Your task to perform on an android device: turn on location history Image 0: 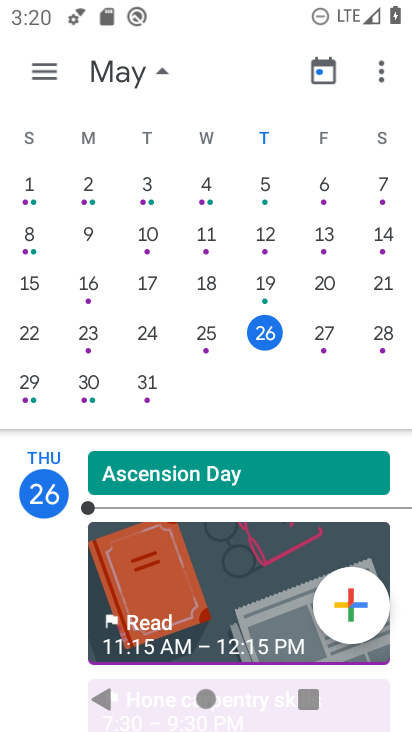
Step 0: press home button
Your task to perform on an android device: turn on location history Image 1: 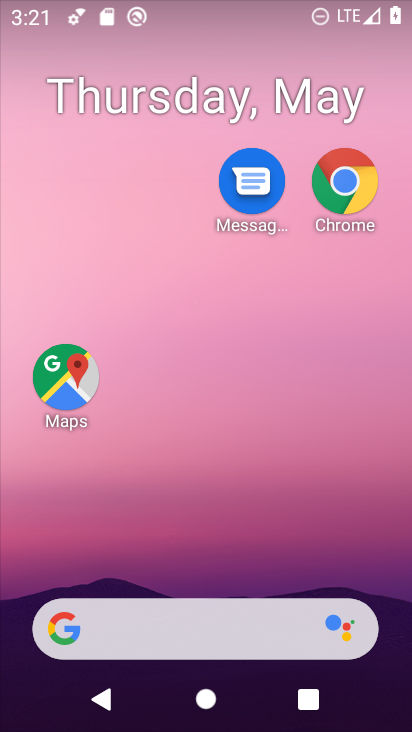
Step 1: drag from (275, 638) to (288, 105)
Your task to perform on an android device: turn on location history Image 2: 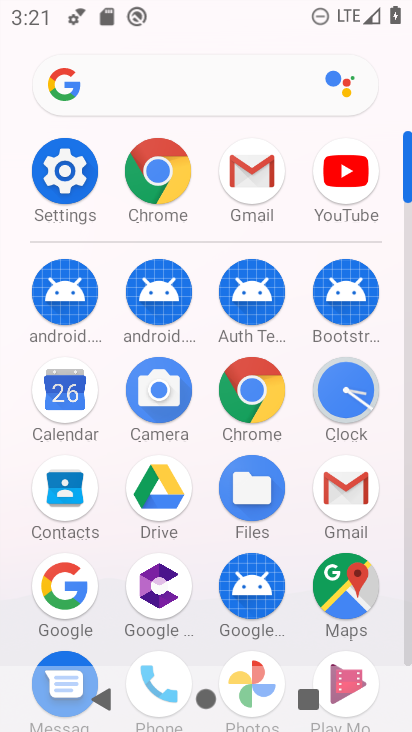
Step 2: click (87, 185)
Your task to perform on an android device: turn on location history Image 3: 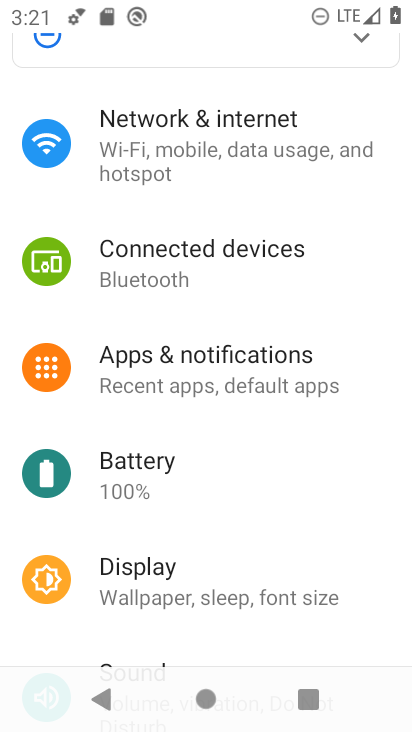
Step 3: drag from (154, 567) to (222, 41)
Your task to perform on an android device: turn on location history Image 4: 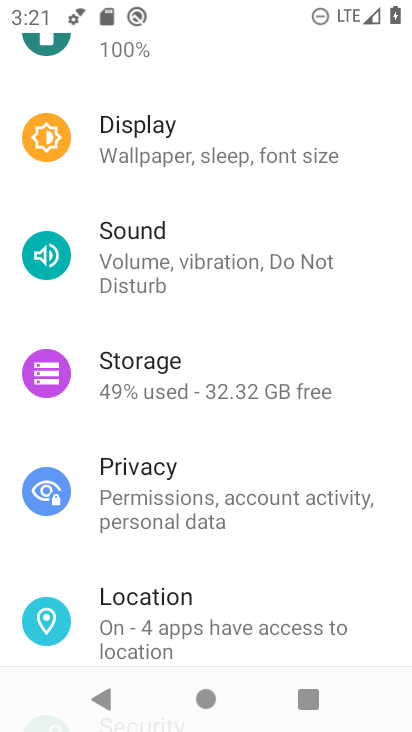
Step 4: click (143, 612)
Your task to perform on an android device: turn on location history Image 5: 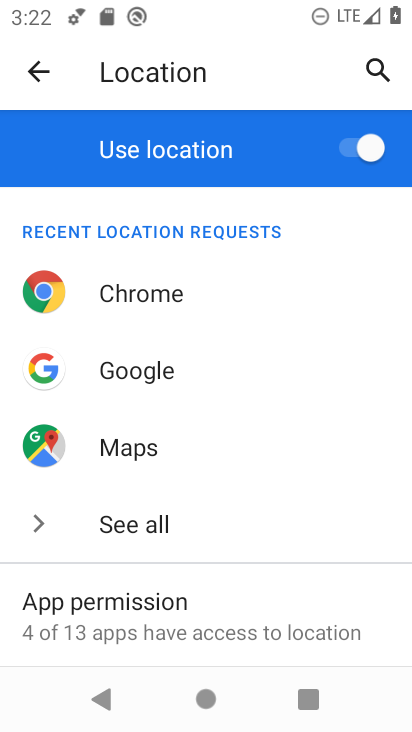
Step 5: drag from (226, 641) to (298, 215)
Your task to perform on an android device: turn on location history Image 6: 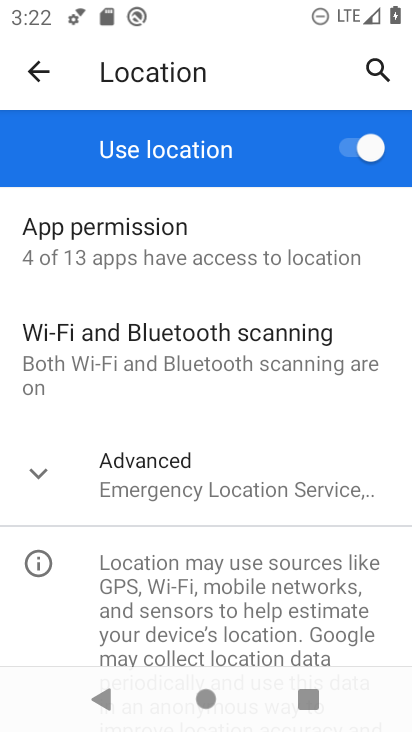
Step 6: click (215, 478)
Your task to perform on an android device: turn on location history Image 7: 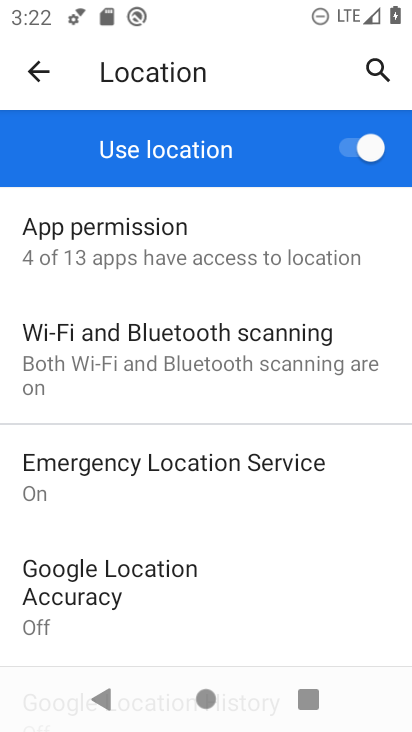
Step 7: drag from (178, 603) to (182, 280)
Your task to perform on an android device: turn on location history Image 8: 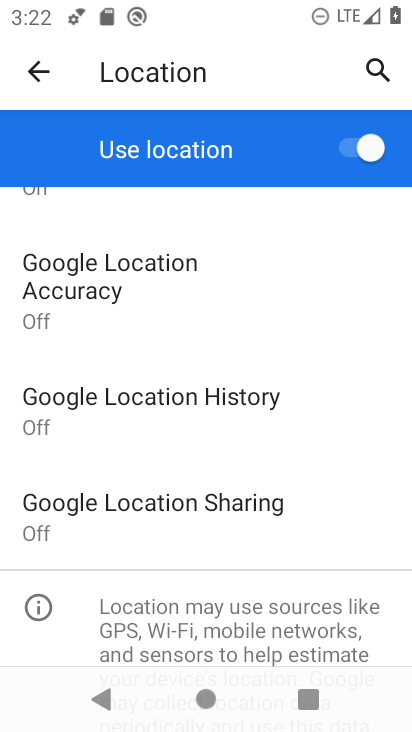
Step 8: click (196, 410)
Your task to perform on an android device: turn on location history Image 9: 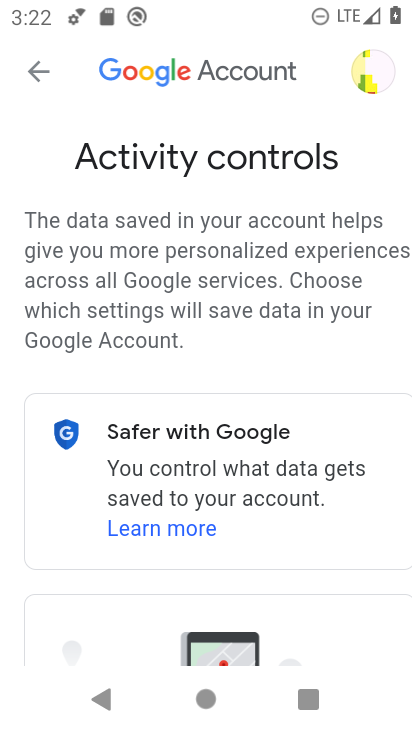
Step 9: task complete